Your task to perform on an android device: change text size in settings app Image 0: 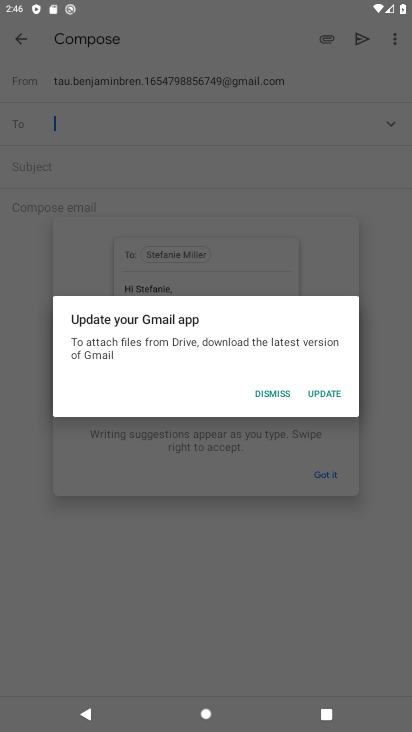
Step 0: press home button
Your task to perform on an android device: change text size in settings app Image 1: 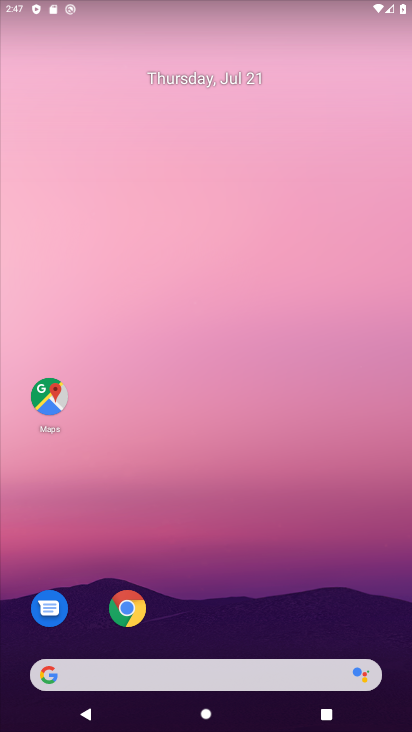
Step 1: drag from (197, 668) to (379, 290)
Your task to perform on an android device: change text size in settings app Image 2: 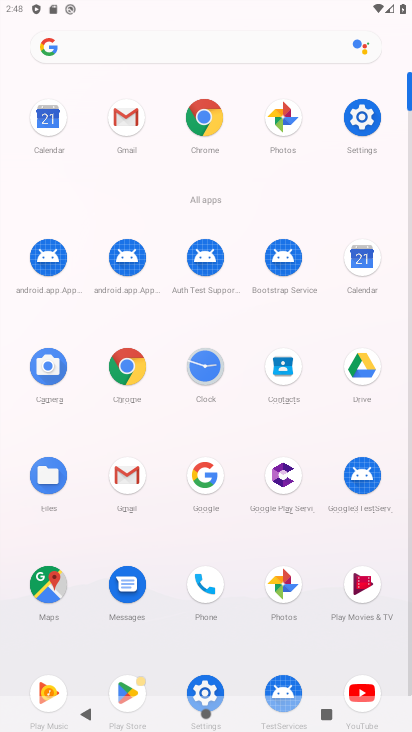
Step 2: click (206, 672)
Your task to perform on an android device: change text size in settings app Image 3: 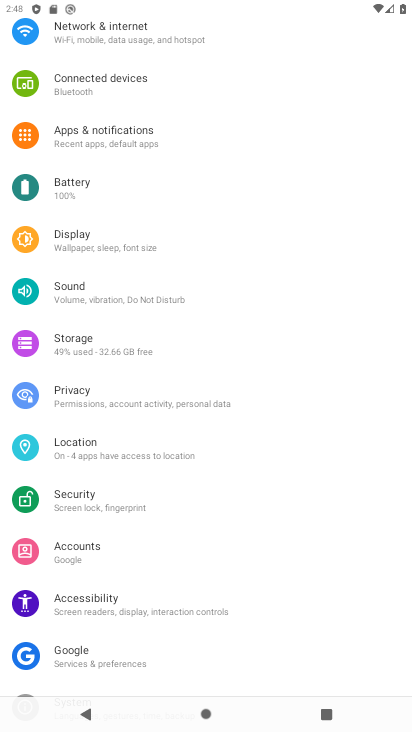
Step 3: click (89, 233)
Your task to perform on an android device: change text size in settings app Image 4: 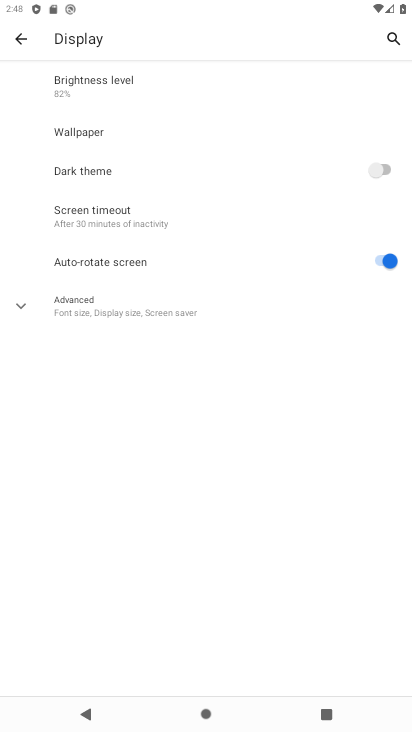
Step 4: click (141, 317)
Your task to perform on an android device: change text size in settings app Image 5: 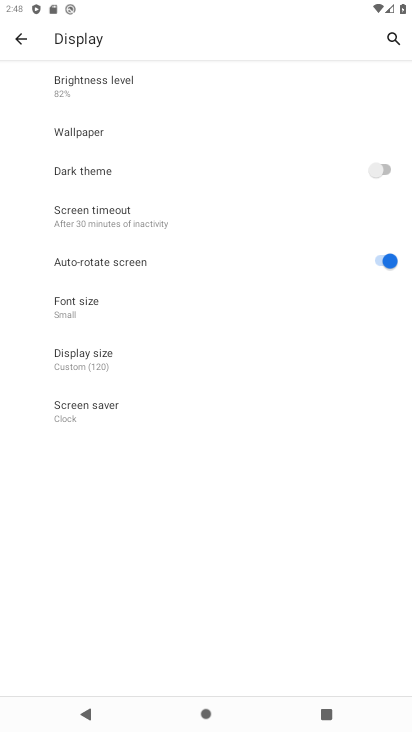
Step 5: click (105, 307)
Your task to perform on an android device: change text size in settings app Image 6: 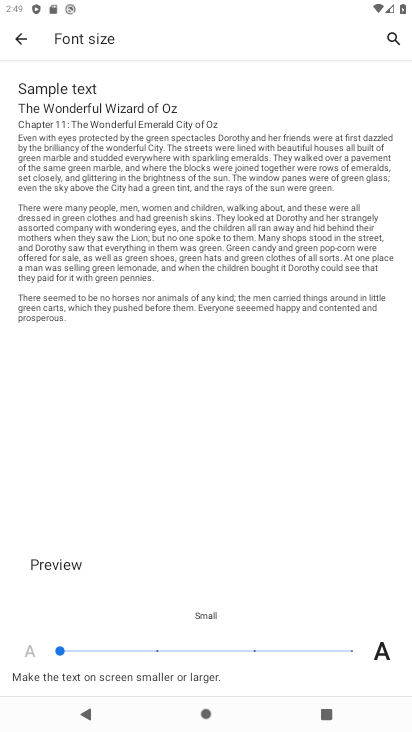
Step 6: click (349, 652)
Your task to perform on an android device: change text size in settings app Image 7: 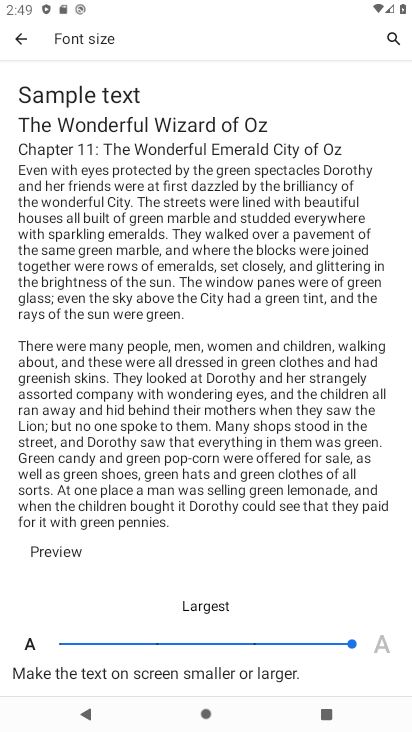
Step 7: task complete